Your task to perform on an android device: toggle javascript in the chrome app Image 0: 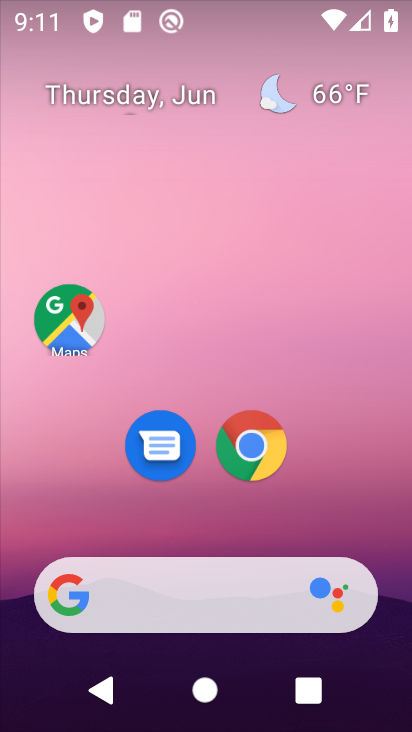
Step 0: click (249, 438)
Your task to perform on an android device: toggle javascript in the chrome app Image 1: 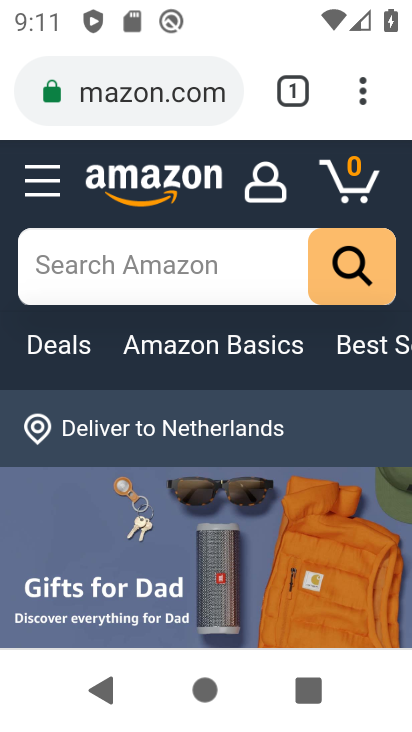
Step 1: click (365, 87)
Your task to perform on an android device: toggle javascript in the chrome app Image 2: 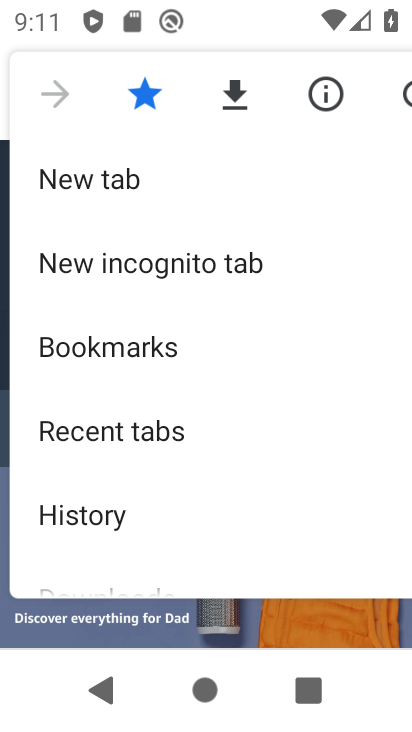
Step 2: drag from (219, 511) to (211, 51)
Your task to perform on an android device: toggle javascript in the chrome app Image 3: 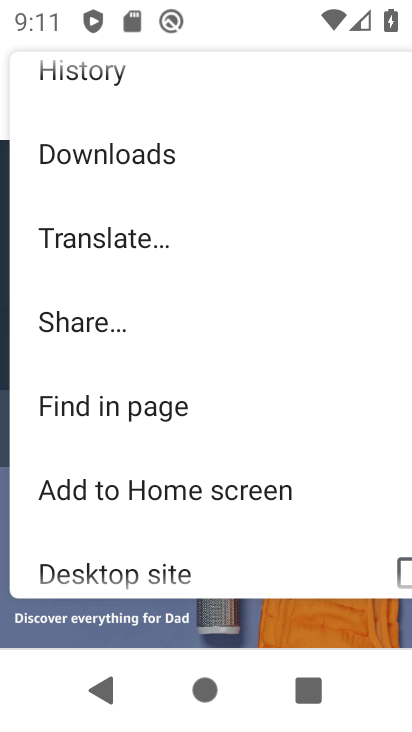
Step 3: drag from (142, 542) to (127, 104)
Your task to perform on an android device: toggle javascript in the chrome app Image 4: 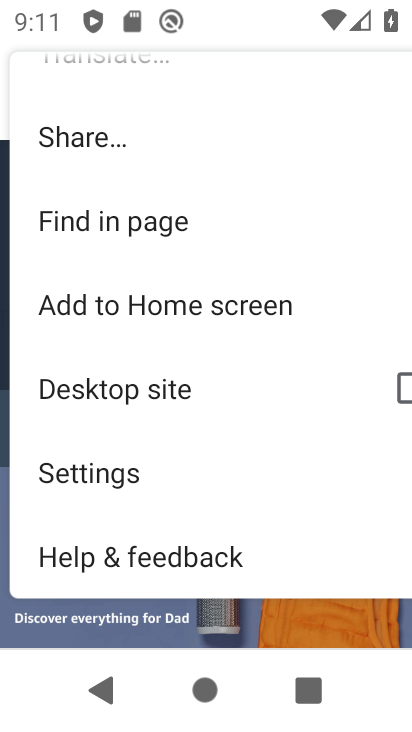
Step 4: click (103, 464)
Your task to perform on an android device: toggle javascript in the chrome app Image 5: 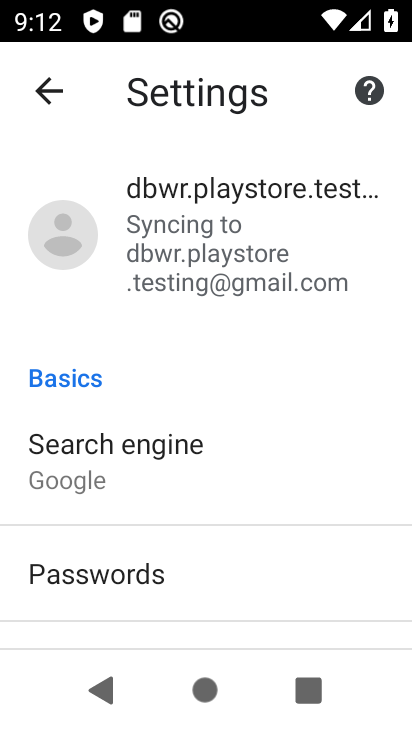
Step 5: drag from (267, 551) to (316, 80)
Your task to perform on an android device: toggle javascript in the chrome app Image 6: 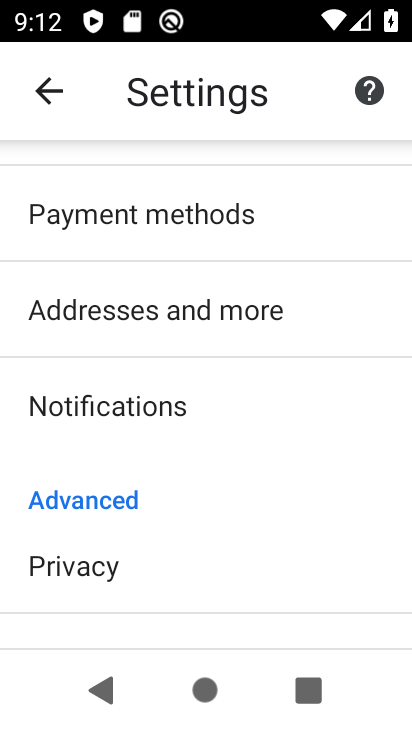
Step 6: drag from (251, 556) to (352, 18)
Your task to perform on an android device: toggle javascript in the chrome app Image 7: 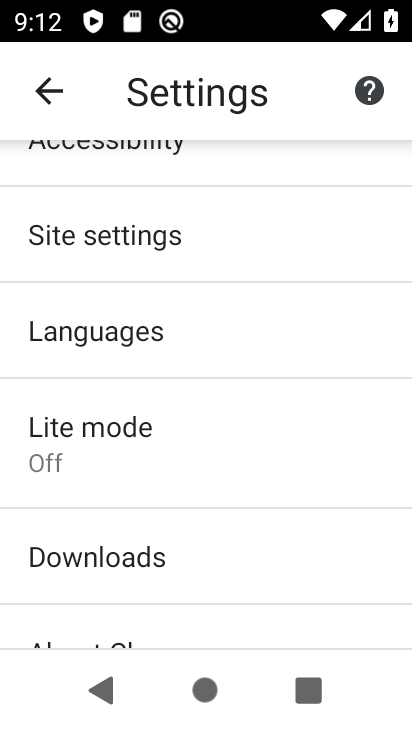
Step 7: click (202, 248)
Your task to perform on an android device: toggle javascript in the chrome app Image 8: 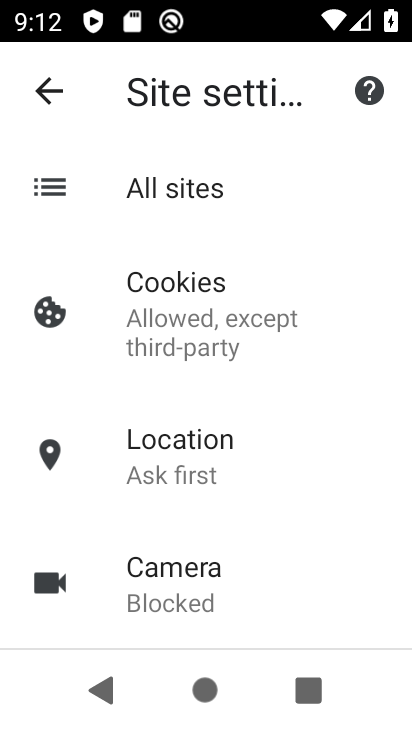
Step 8: drag from (154, 588) to (258, 166)
Your task to perform on an android device: toggle javascript in the chrome app Image 9: 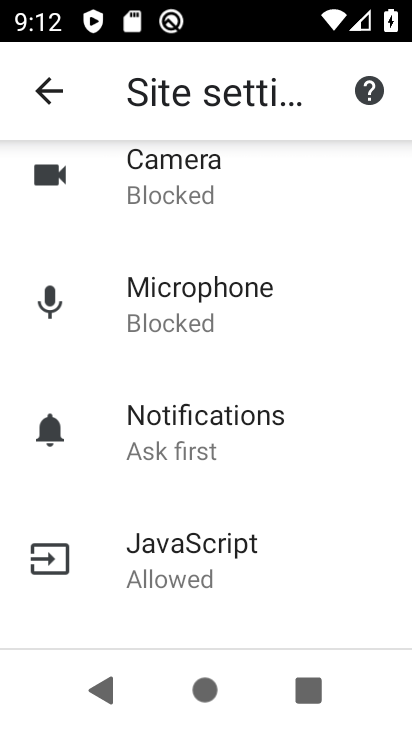
Step 9: click (216, 548)
Your task to perform on an android device: toggle javascript in the chrome app Image 10: 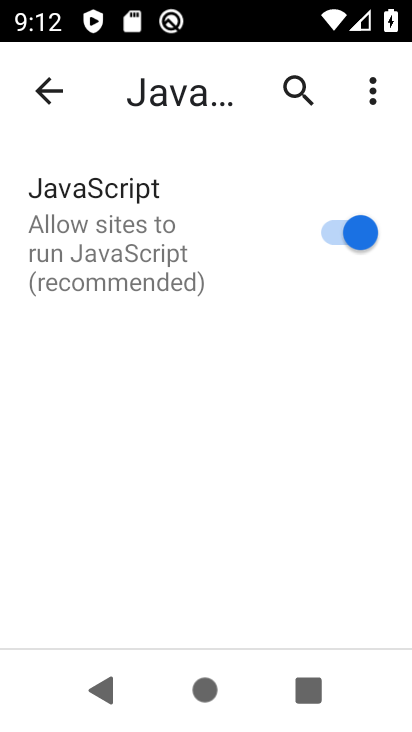
Step 10: click (366, 211)
Your task to perform on an android device: toggle javascript in the chrome app Image 11: 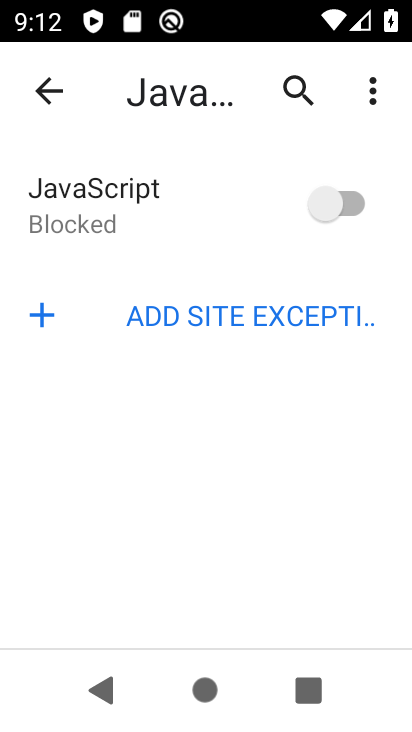
Step 11: task complete